Your task to perform on an android device: turn off notifications settings in the gmail app Image 0: 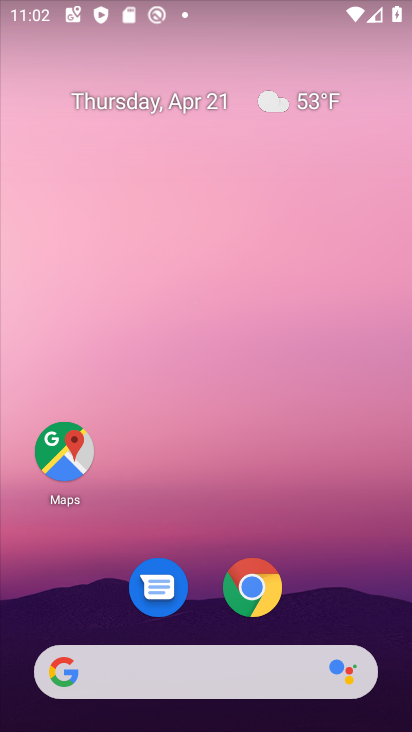
Step 0: drag from (182, 580) to (225, 193)
Your task to perform on an android device: turn off notifications settings in the gmail app Image 1: 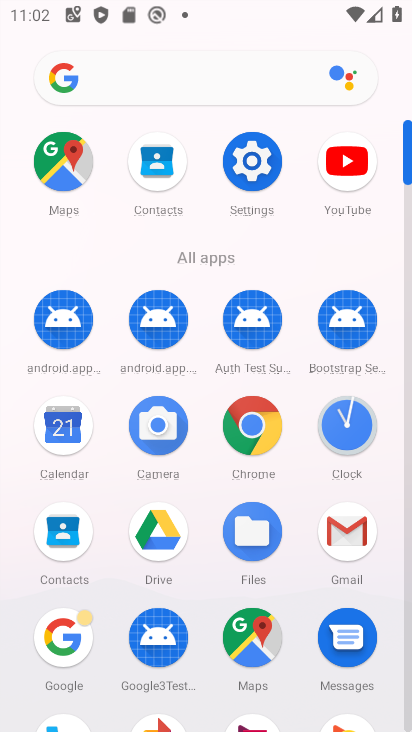
Step 1: click (352, 528)
Your task to perform on an android device: turn off notifications settings in the gmail app Image 2: 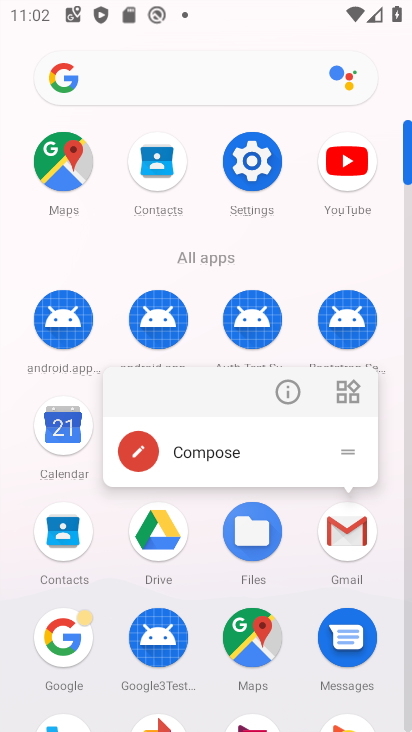
Step 2: click (289, 383)
Your task to perform on an android device: turn off notifications settings in the gmail app Image 3: 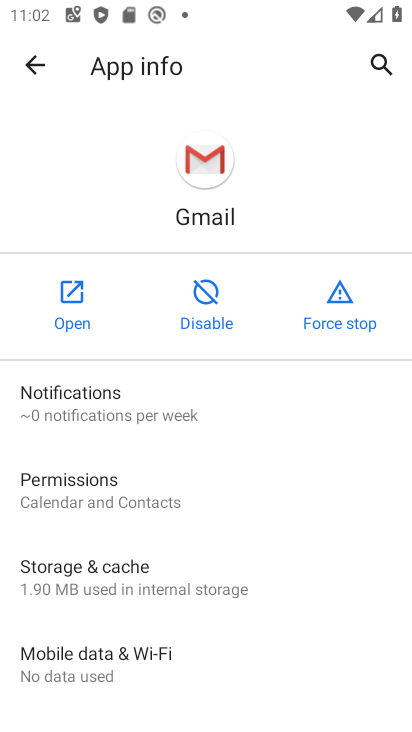
Step 3: click (122, 392)
Your task to perform on an android device: turn off notifications settings in the gmail app Image 4: 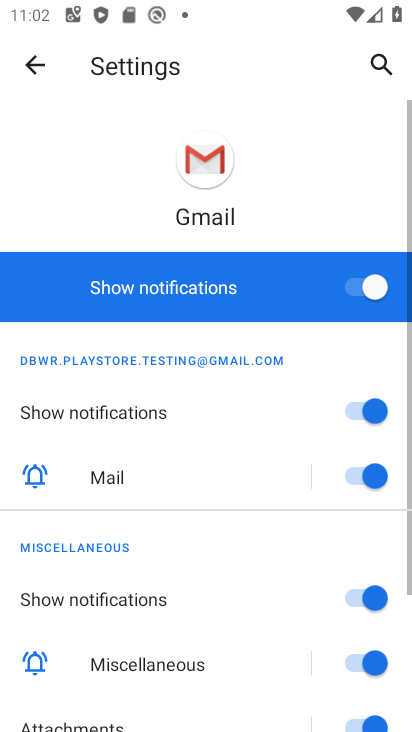
Step 4: click (365, 291)
Your task to perform on an android device: turn off notifications settings in the gmail app Image 5: 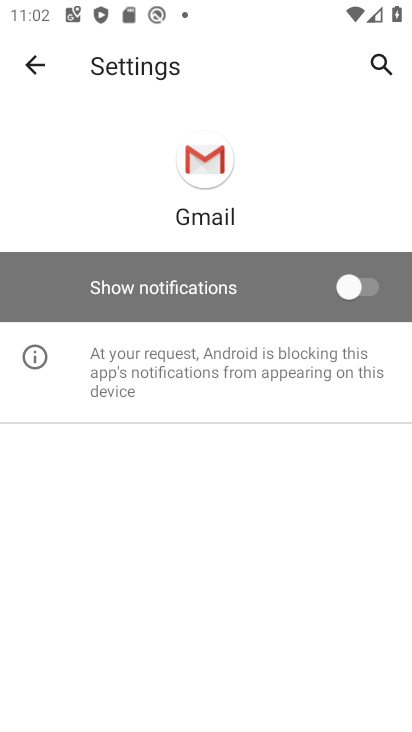
Step 5: task complete